Your task to perform on an android device: Open Chrome and go to settings Image 0: 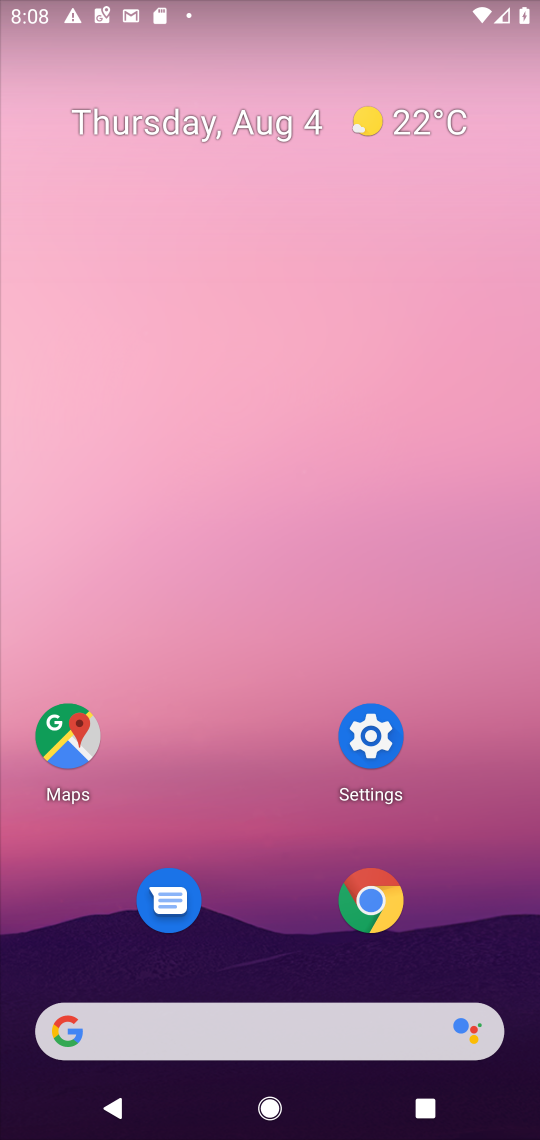
Step 0: press home button
Your task to perform on an android device: Open Chrome and go to settings Image 1: 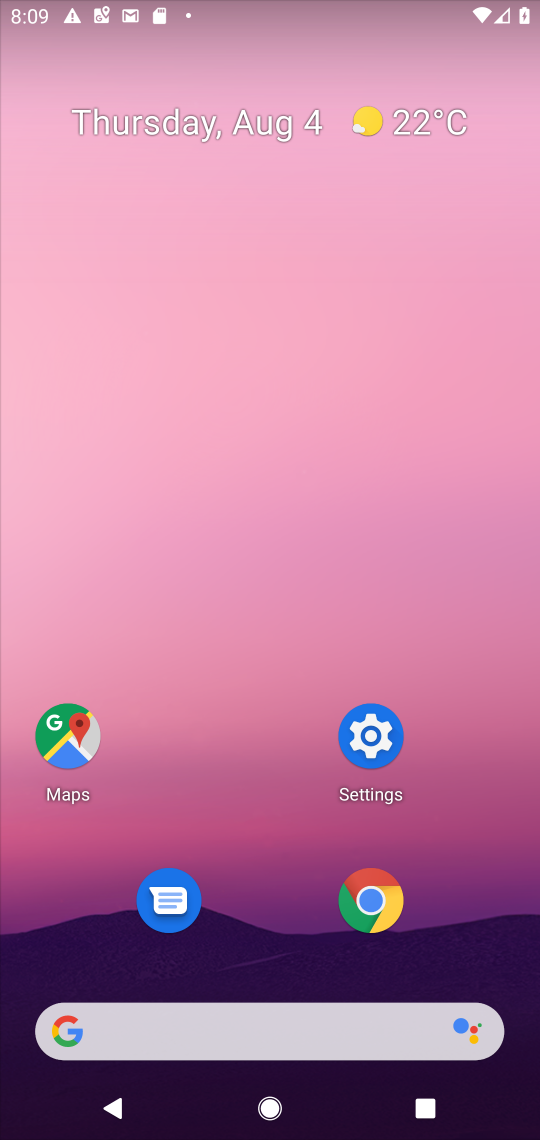
Step 1: click (381, 899)
Your task to perform on an android device: Open Chrome and go to settings Image 2: 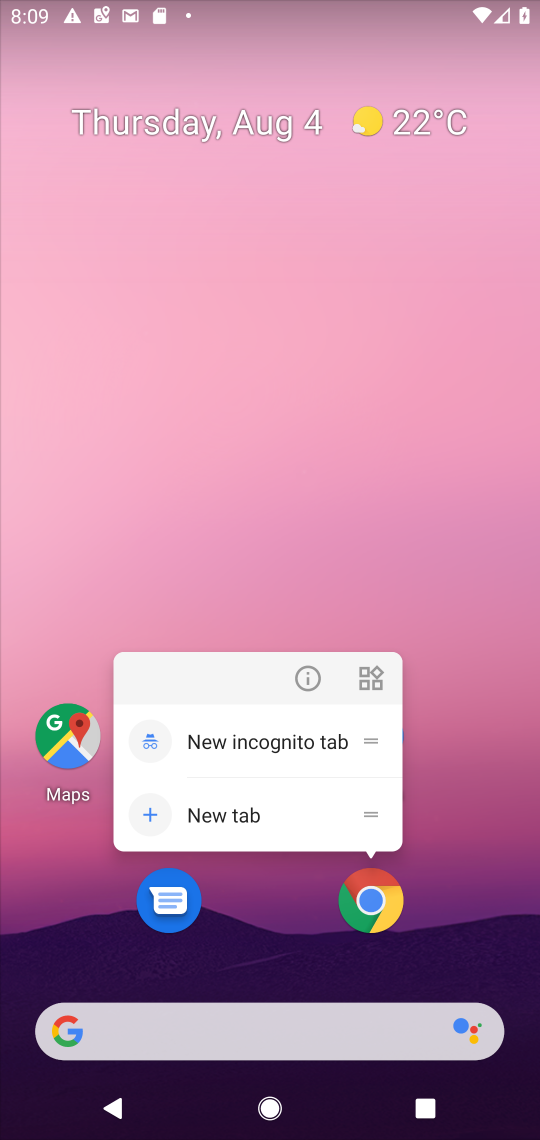
Step 2: click (363, 920)
Your task to perform on an android device: Open Chrome and go to settings Image 3: 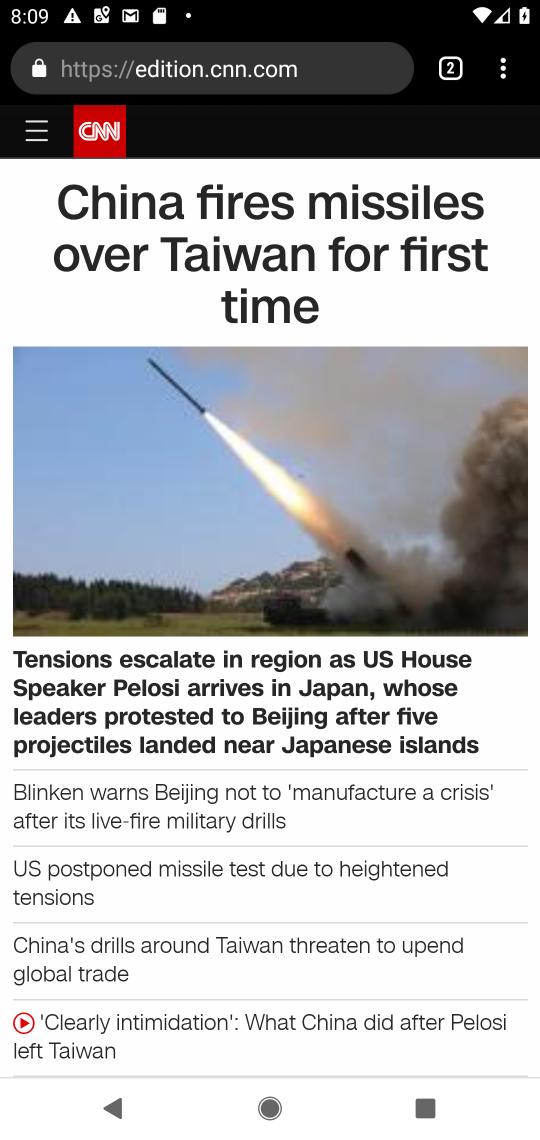
Step 3: task complete